Your task to perform on an android device: change the clock display to show seconds Image 0: 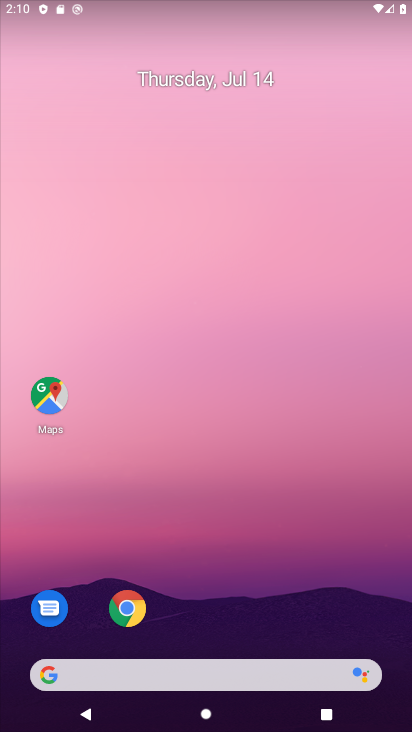
Step 0: drag from (250, 649) to (277, 178)
Your task to perform on an android device: change the clock display to show seconds Image 1: 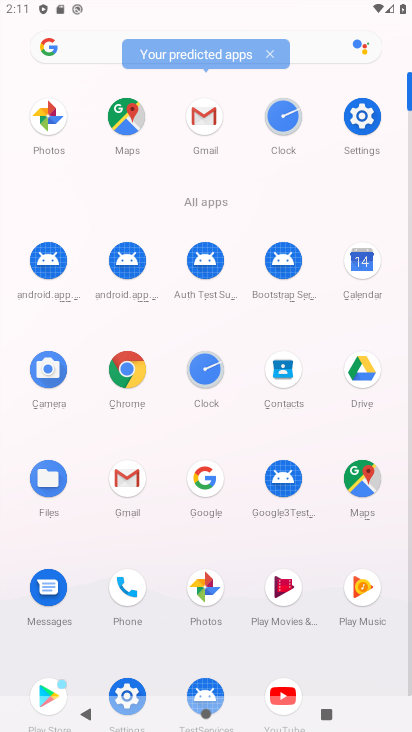
Step 1: click (215, 381)
Your task to perform on an android device: change the clock display to show seconds Image 2: 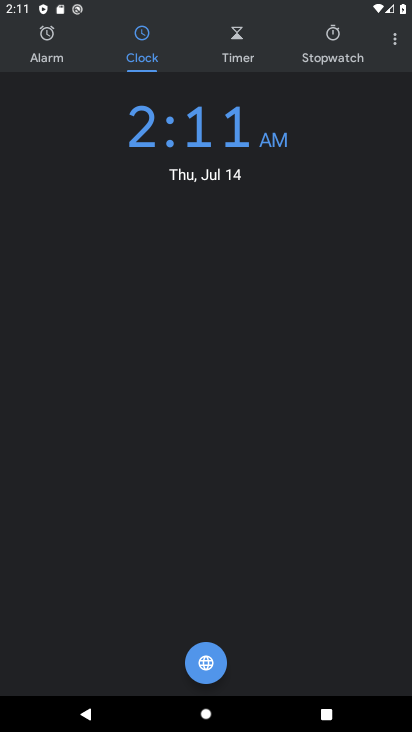
Step 2: click (395, 36)
Your task to perform on an android device: change the clock display to show seconds Image 3: 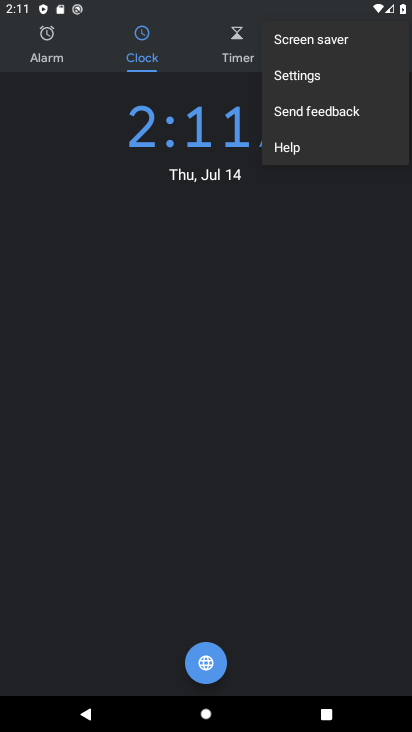
Step 3: click (379, 68)
Your task to perform on an android device: change the clock display to show seconds Image 4: 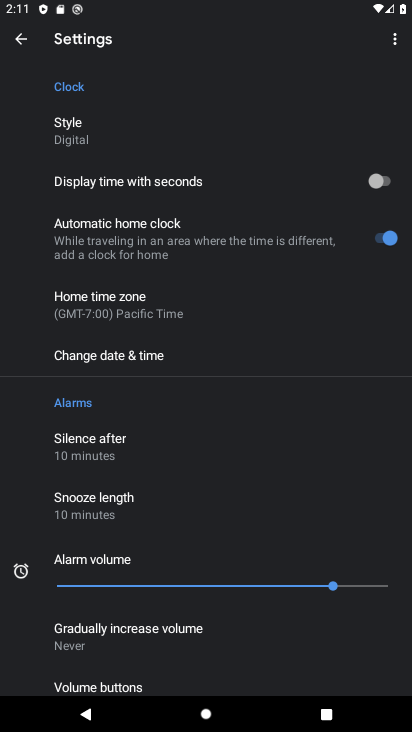
Step 4: click (393, 185)
Your task to perform on an android device: change the clock display to show seconds Image 5: 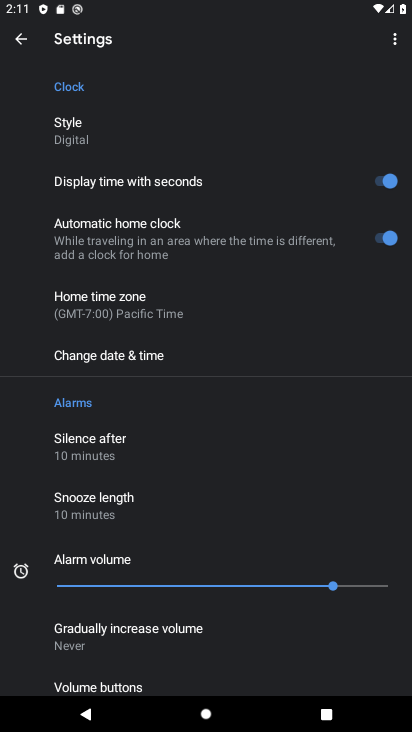
Step 5: task complete